Your task to perform on an android device: change the clock display to digital Image 0: 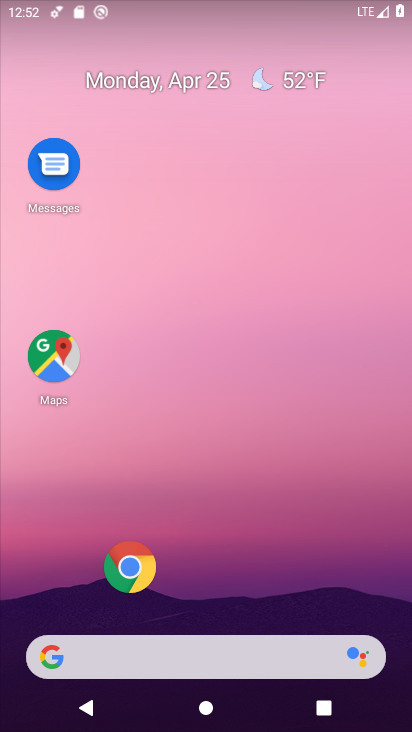
Step 0: drag from (257, 631) to (330, 173)
Your task to perform on an android device: change the clock display to digital Image 1: 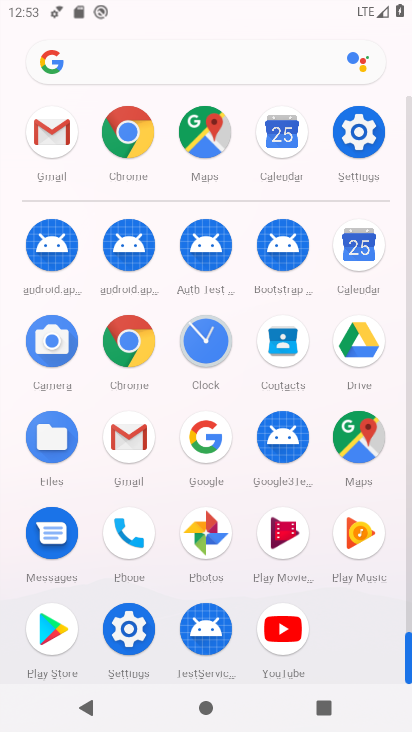
Step 1: click (223, 353)
Your task to perform on an android device: change the clock display to digital Image 2: 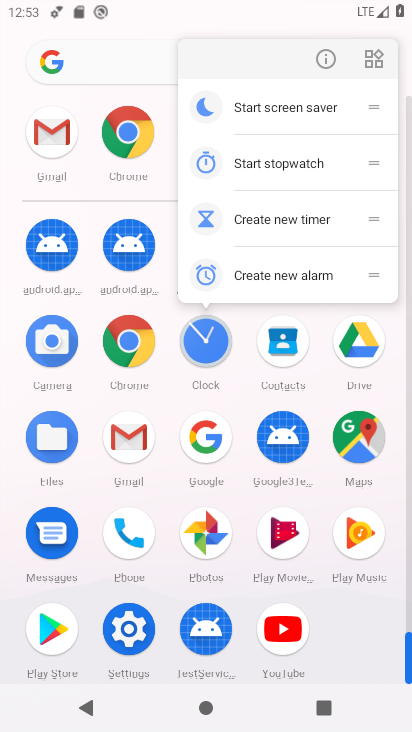
Step 2: click (204, 349)
Your task to perform on an android device: change the clock display to digital Image 3: 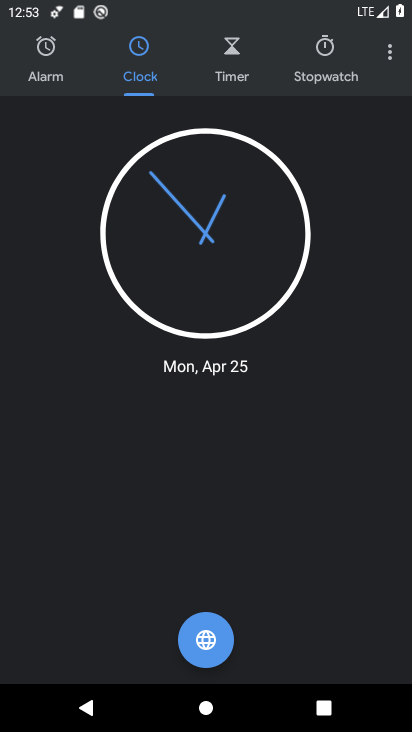
Step 3: click (394, 56)
Your task to perform on an android device: change the clock display to digital Image 4: 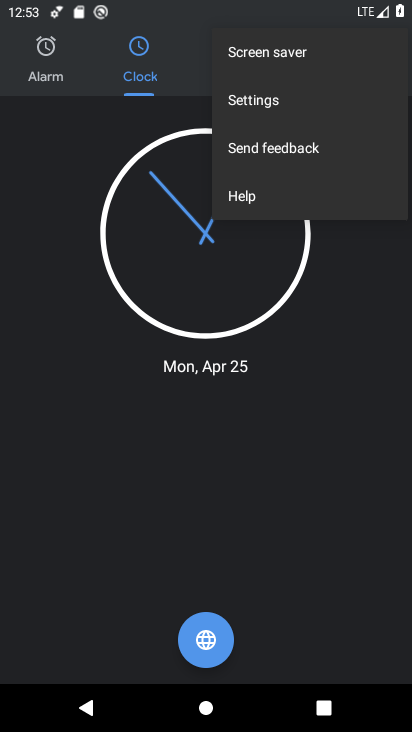
Step 4: click (223, 109)
Your task to perform on an android device: change the clock display to digital Image 5: 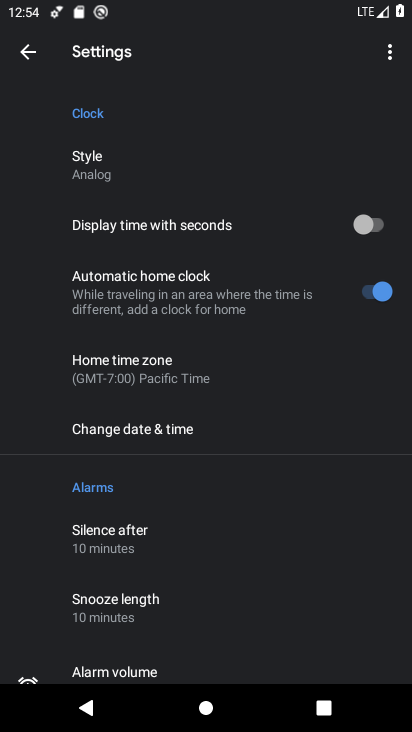
Step 5: click (159, 176)
Your task to perform on an android device: change the clock display to digital Image 6: 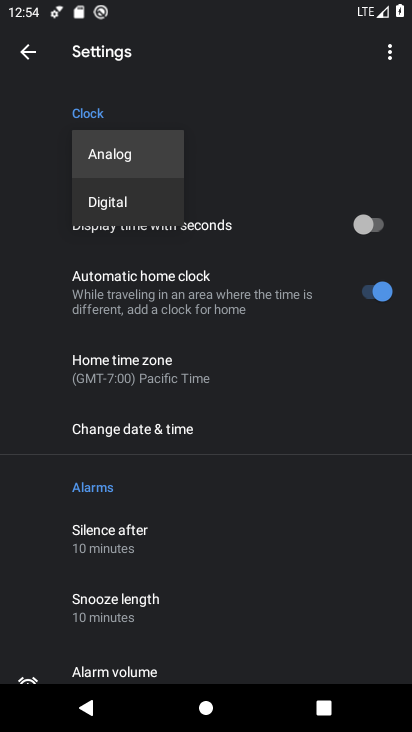
Step 6: click (154, 198)
Your task to perform on an android device: change the clock display to digital Image 7: 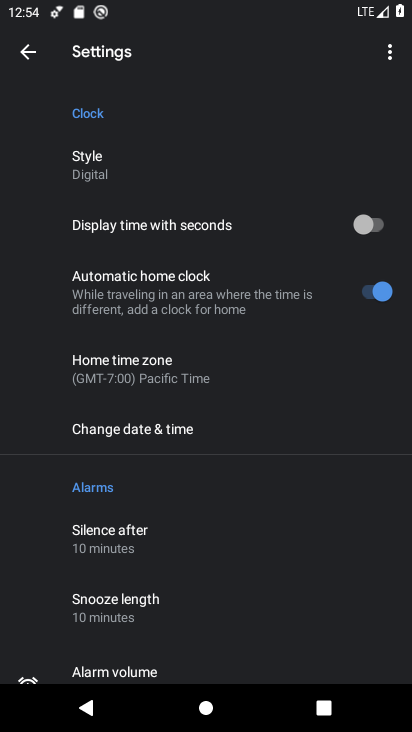
Step 7: task complete